Your task to perform on an android device: Go to location settings Image 0: 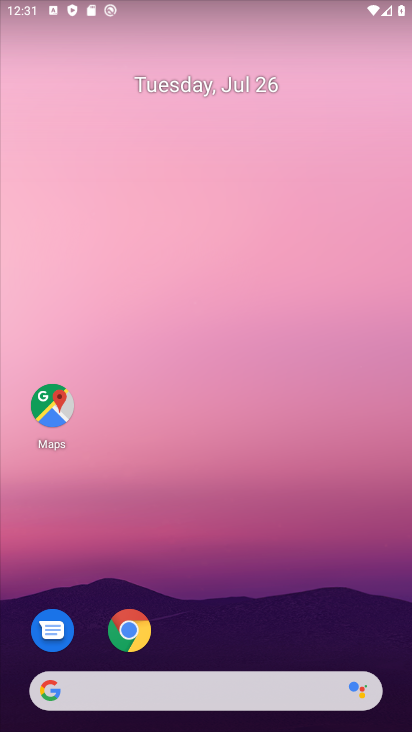
Step 0: drag from (351, 635) to (353, 246)
Your task to perform on an android device: Go to location settings Image 1: 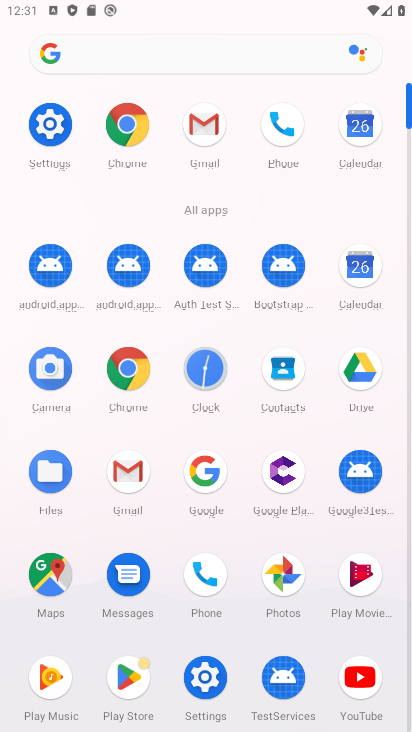
Step 1: click (204, 677)
Your task to perform on an android device: Go to location settings Image 2: 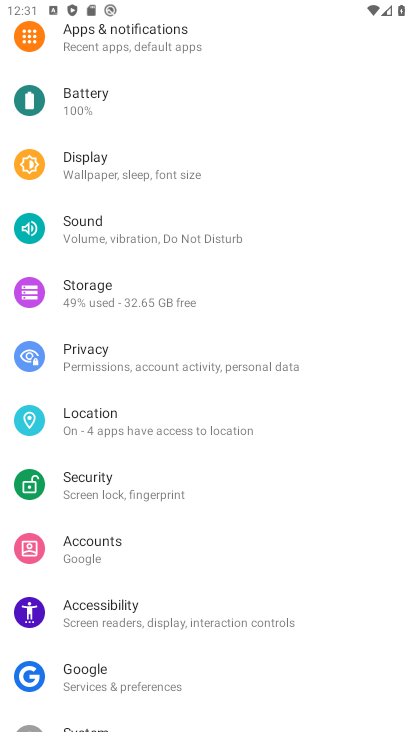
Step 2: click (90, 417)
Your task to perform on an android device: Go to location settings Image 3: 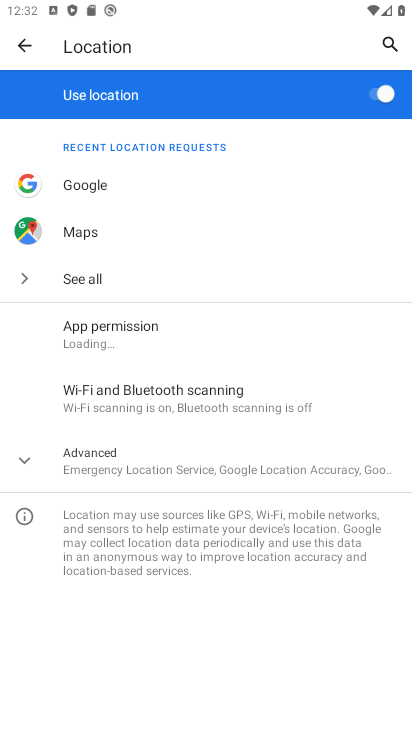
Step 3: click (17, 466)
Your task to perform on an android device: Go to location settings Image 4: 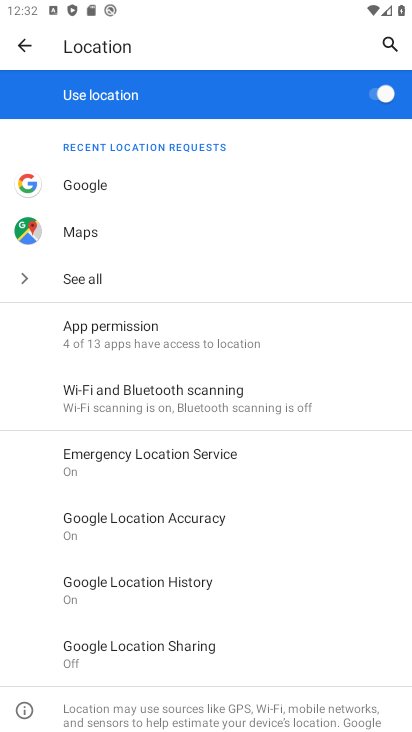
Step 4: task complete